Your task to perform on an android device: Open location settings Image 0: 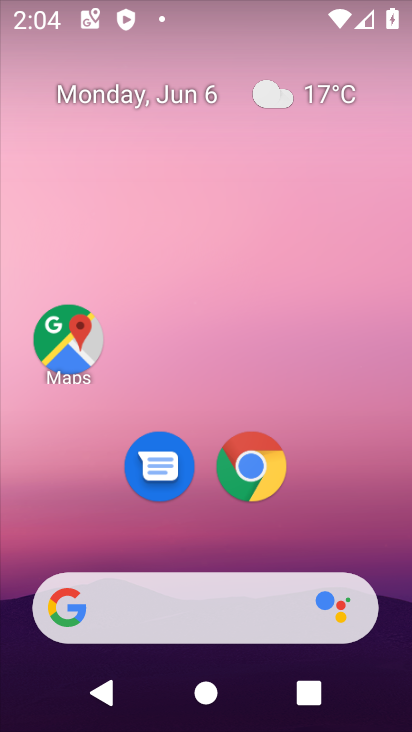
Step 0: press home button
Your task to perform on an android device: Open location settings Image 1: 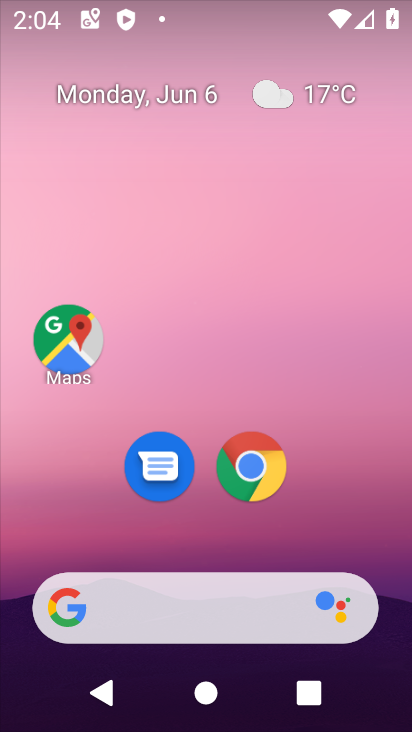
Step 1: drag from (360, 470) to (353, 132)
Your task to perform on an android device: Open location settings Image 2: 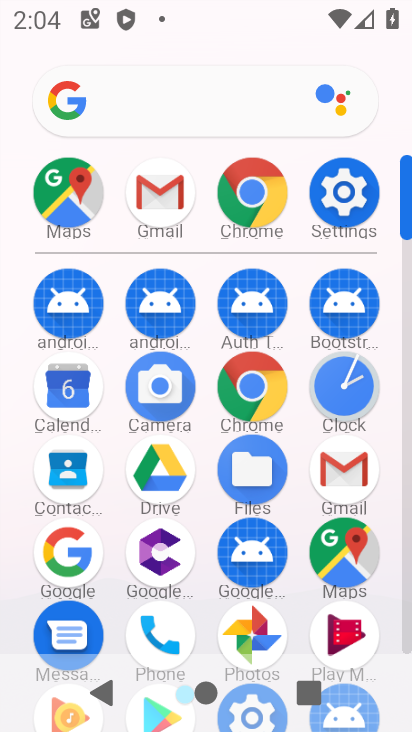
Step 2: click (330, 180)
Your task to perform on an android device: Open location settings Image 3: 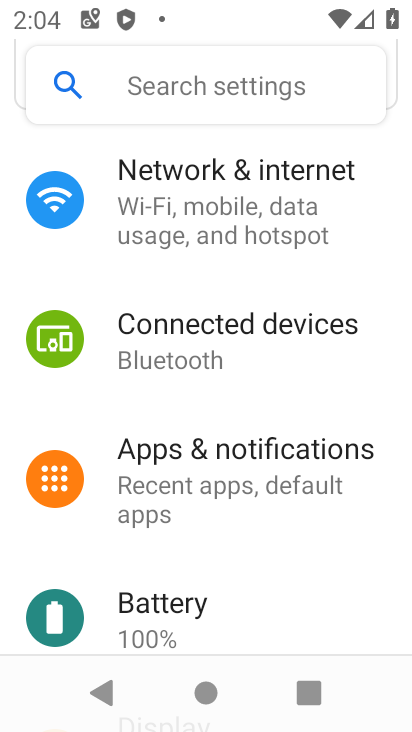
Step 3: drag from (270, 477) to (412, 39)
Your task to perform on an android device: Open location settings Image 4: 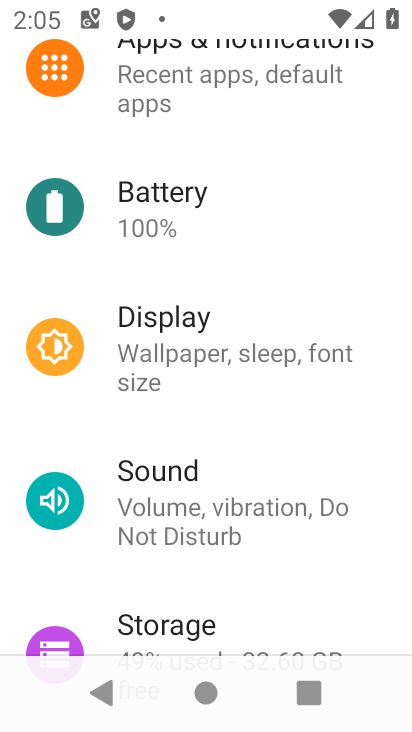
Step 4: drag from (98, 578) to (303, 145)
Your task to perform on an android device: Open location settings Image 5: 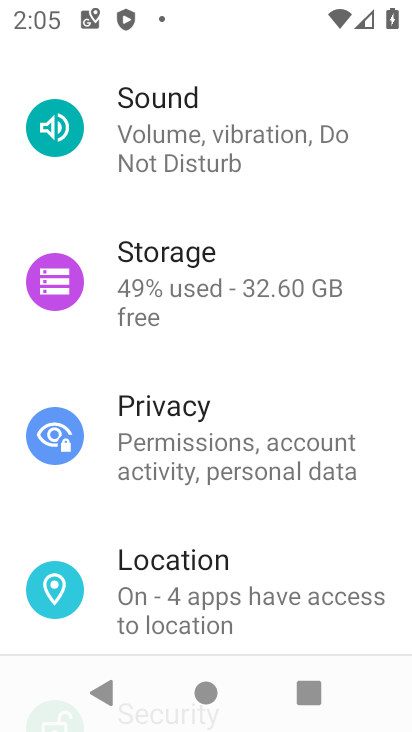
Step 5: click (213, 586)
Your task to perform on an android device: Open location settings Image 6: 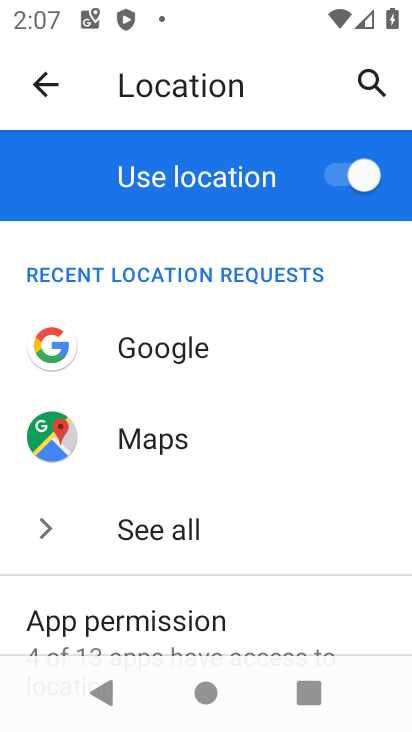
Step 6: task complete